Your task to perform on an android device: Open Chrome and go to the settings page Image 0: 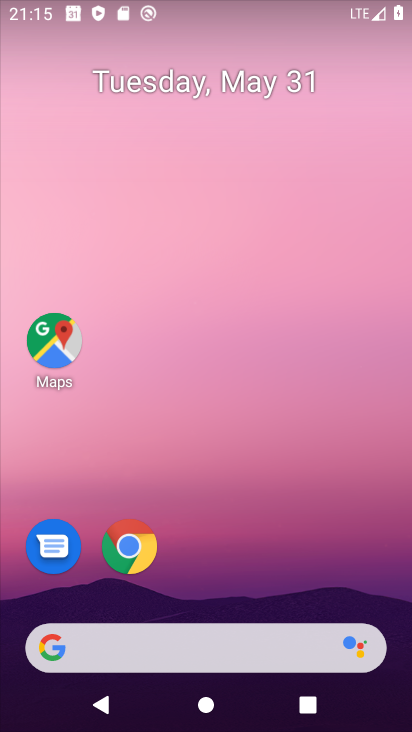
Step 0: click (123, 545)
Your task to perform on an android device: Open Chrome and go to the settings page Image 1: 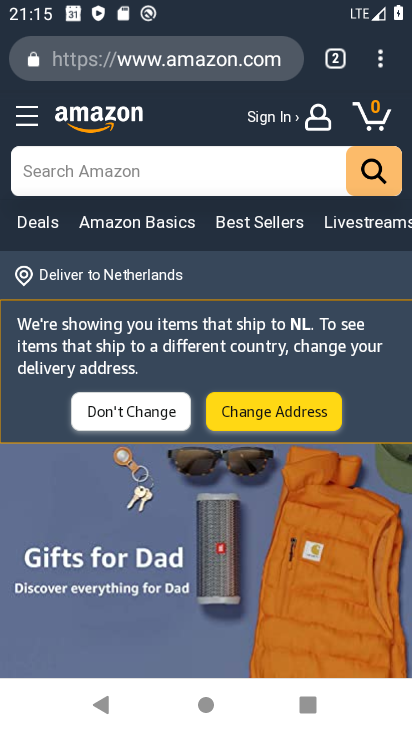
Step 1: click (381, 58)
Your task to perform on an android device: Open Chrome and go to the settings page Image 2: 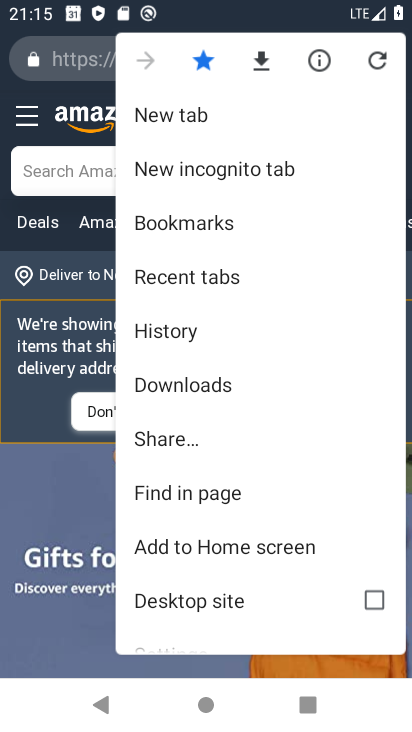
Step 2: drag from (222, 613) to (240, 260)
Your task to perform on an android device: Open Chrome and go to the settings page Image 3: 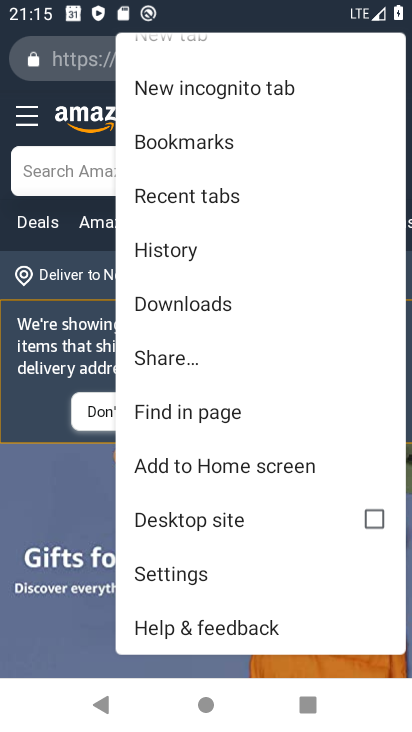
Step 3: click (165, 570)
Your task to perform on an android device: Open Chrome and go to the settings page Image 4: 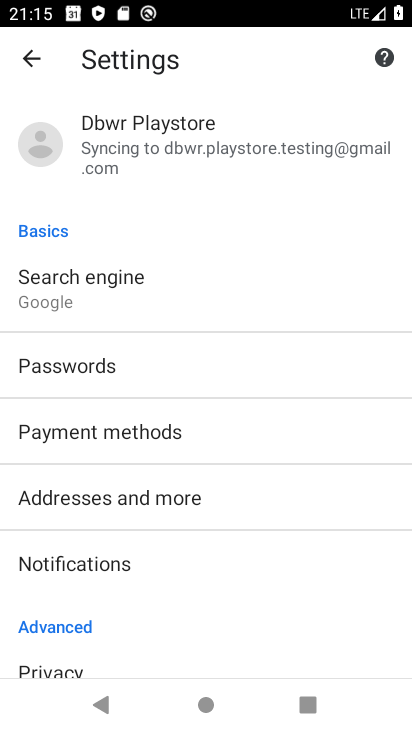
Step 4: task complete